Your task to perform on an android device: Search for vegetarian restaurants on Maps Image 0: 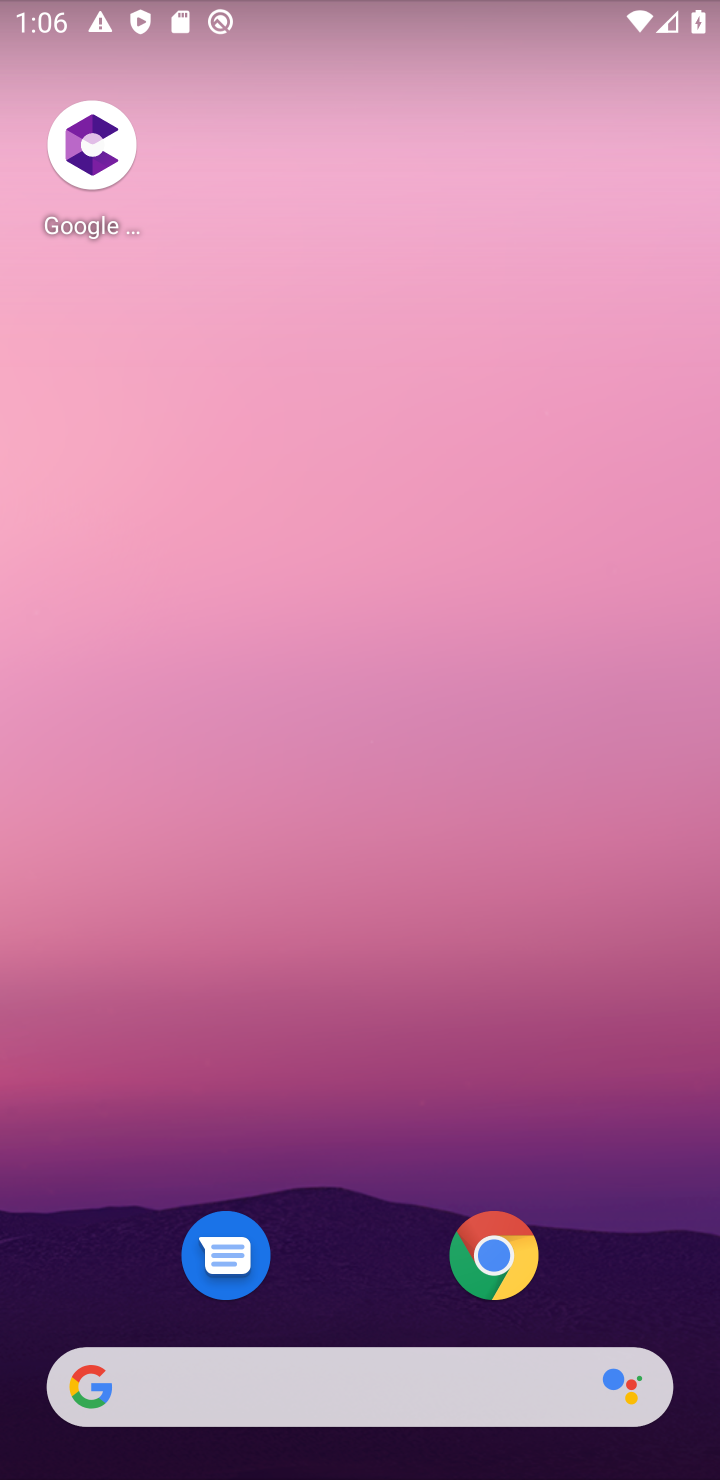
Step 0: drag from (655, 1257) to (455, 237)
Your task to perform on an android device: Search for vegetarian restaurants on Maps Image 1: 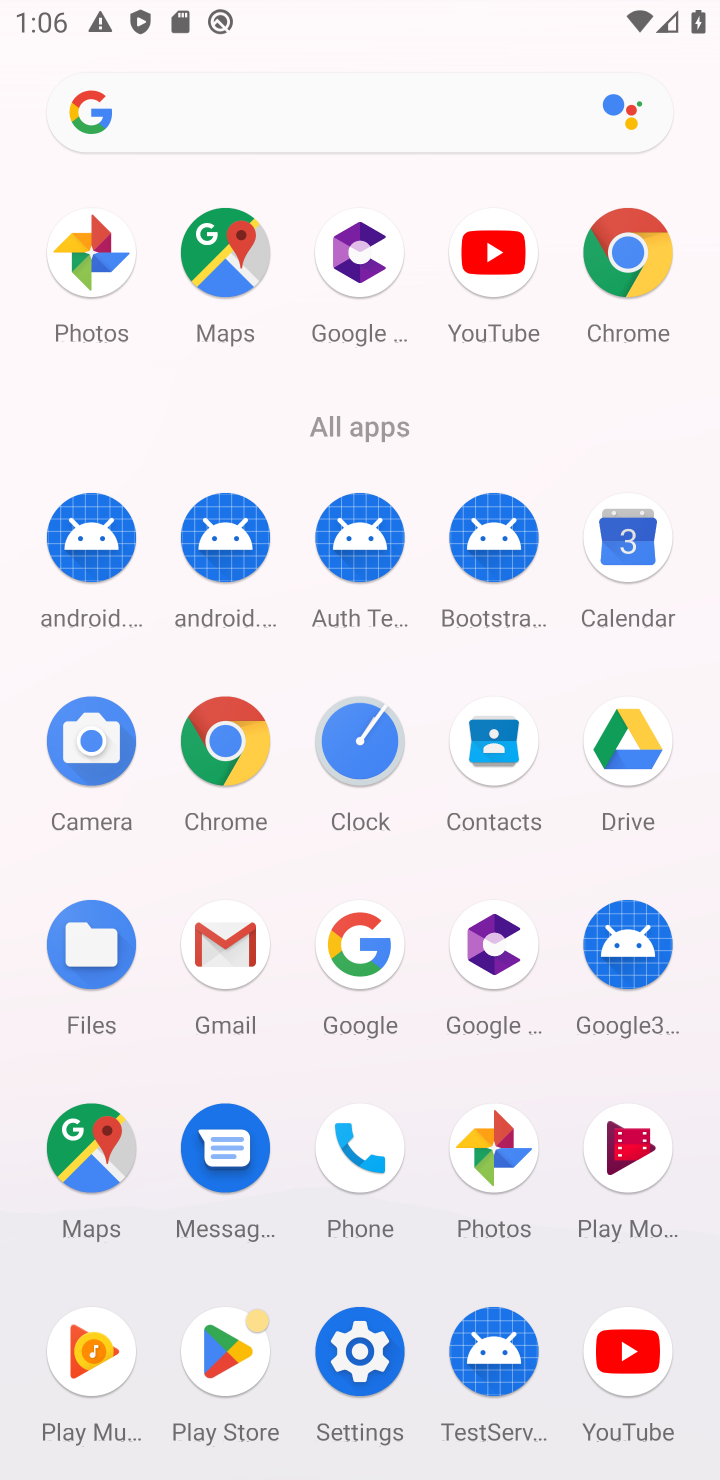
Step 1: click (212, 281)
Your task to perform on an android device: Search for vegetarian restaurants on Maps Image 2: 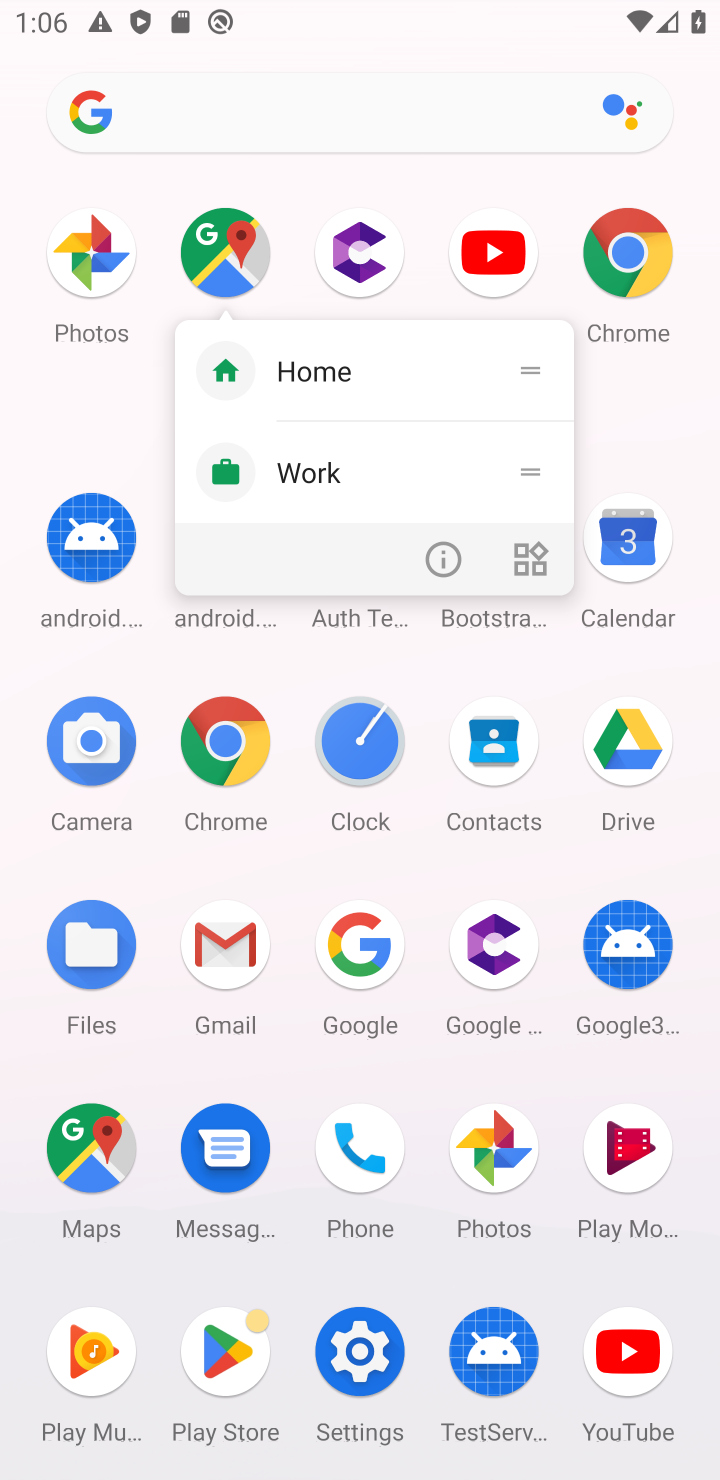
Step 2: click (212, 281)
Your task to perform on an android device: Search for vegetarian restaurants on Maps Image 3: 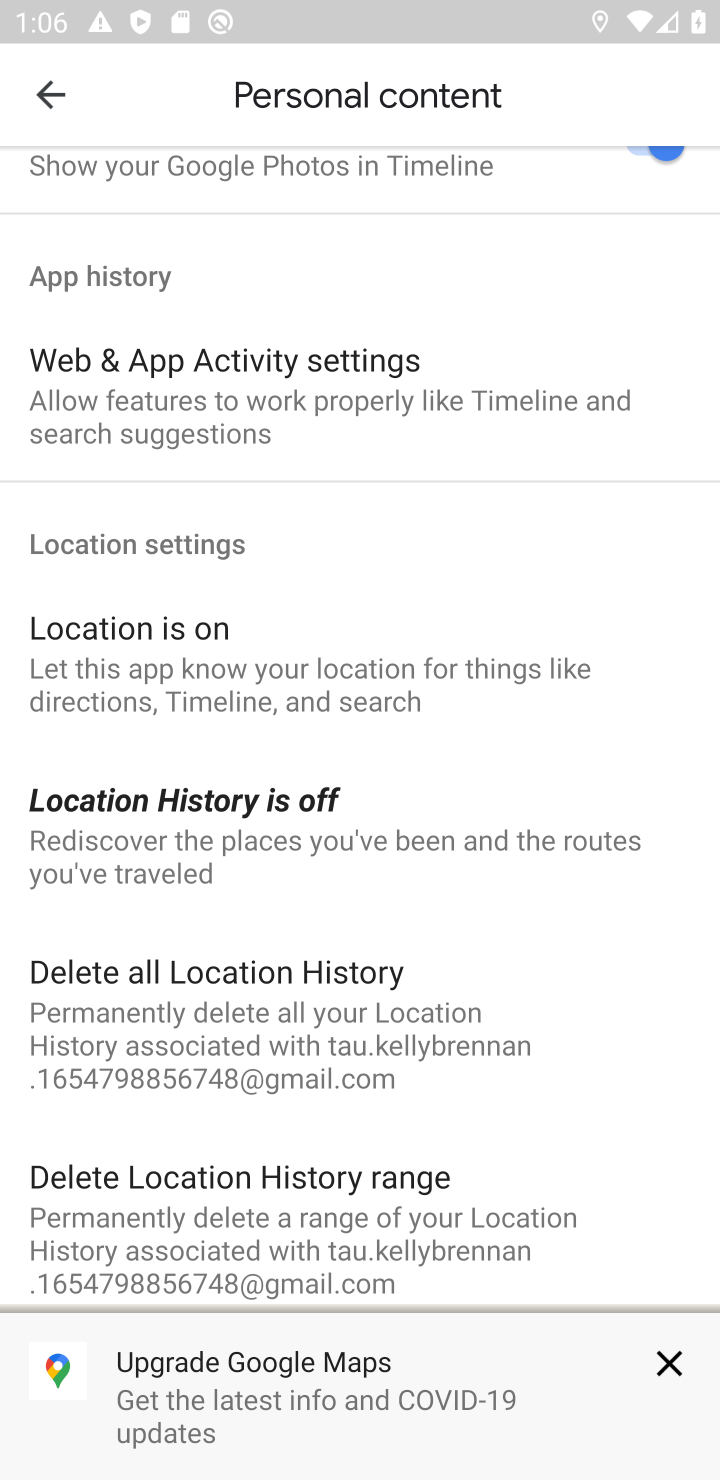
Step 3: click (57, 95)
Your task to perform on an android device: Search for vegetarian restaurants on Maps Image 4: 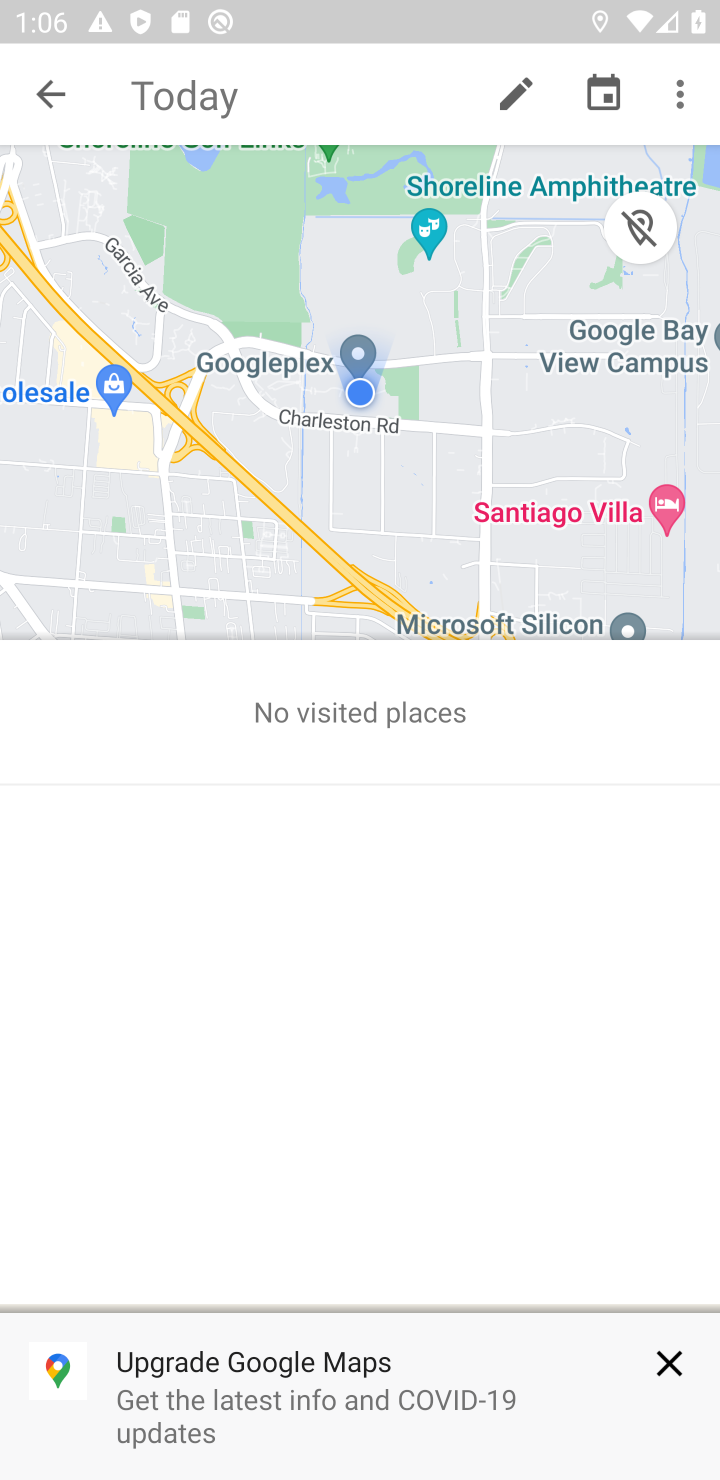
Step 4: click (57, 105)
Your task to perform on an android device: Search for vegetarian restaurants on Maps Image 5: 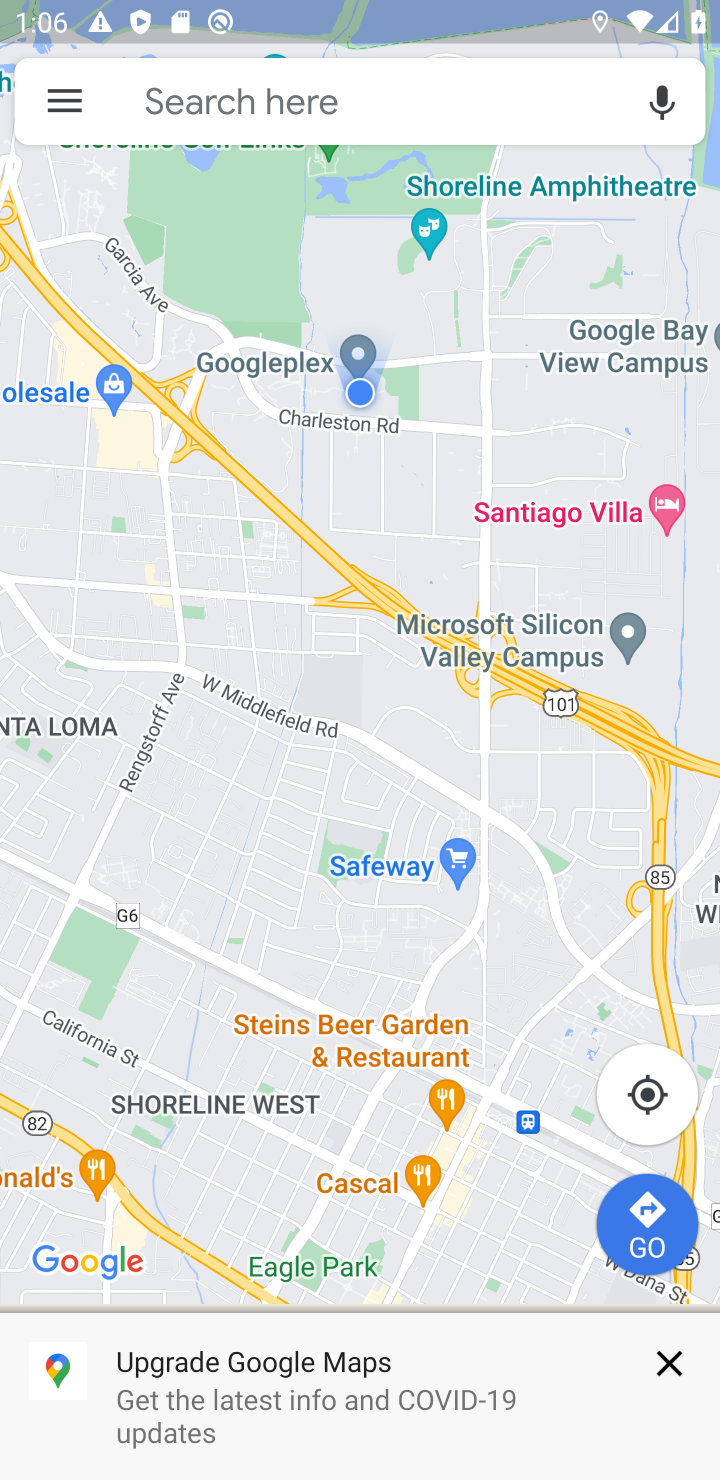
Step 5: click (234, 101)
Your task to perform on an android device: Search for vegetarian restaurants on Maps Image 6: 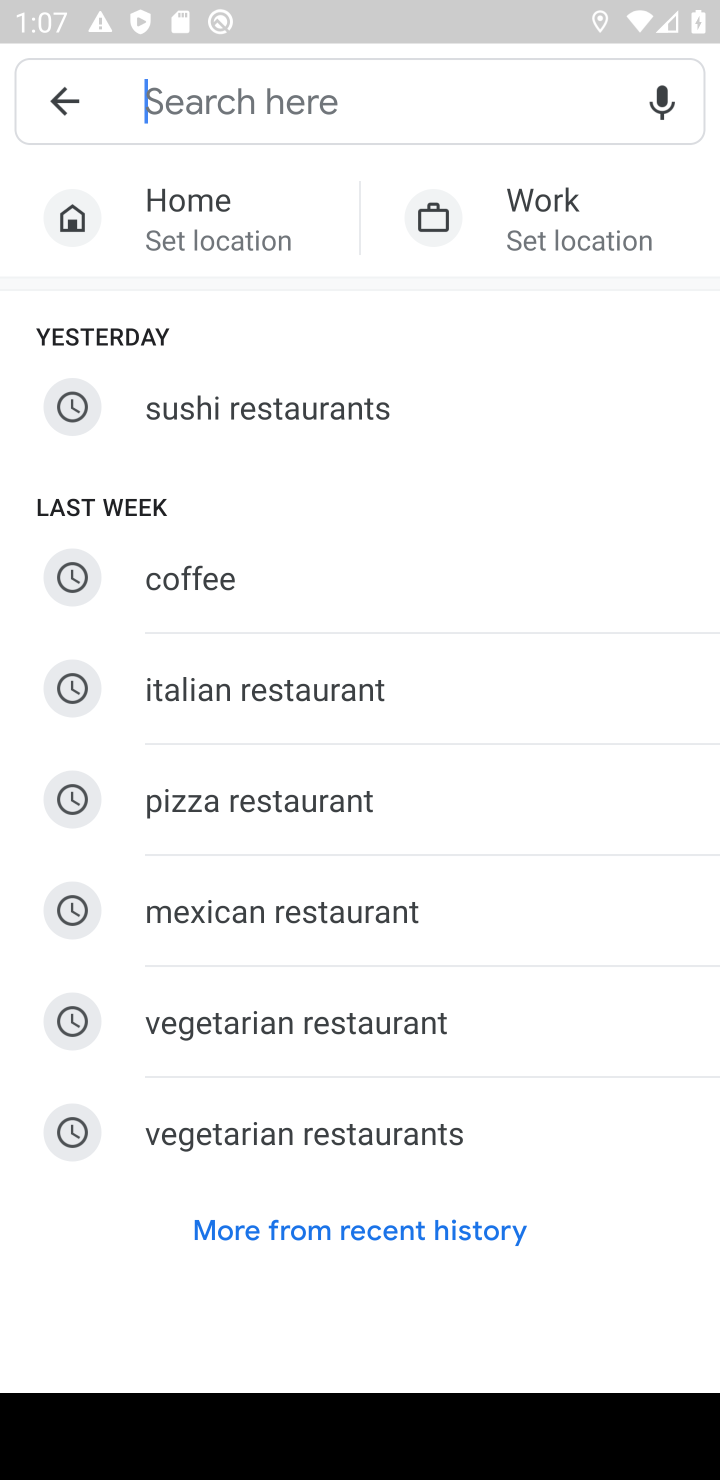
Step 6: click (375, 1137)
Your task to perform on an android device: Search for vegetarian restaurants on Maps Image 7: 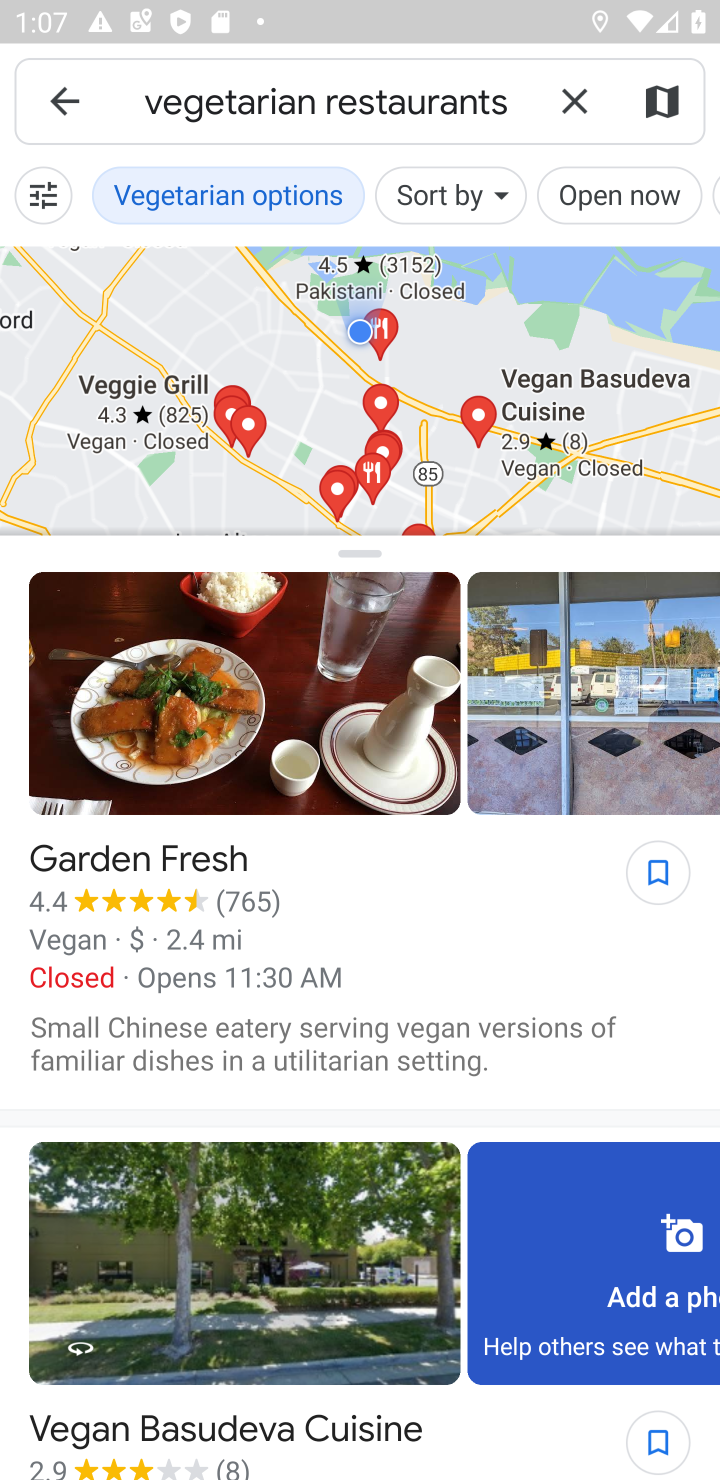
Step 7: task complete